Your task to perform on an android device: Show me the alarms in the clock app Image 0: 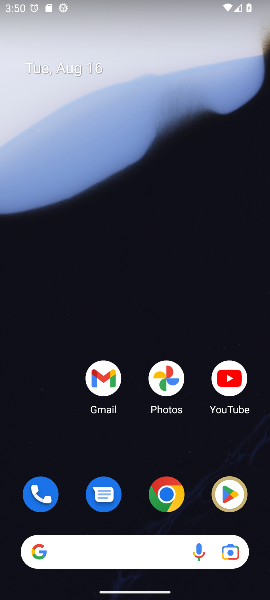
Step 0: drag from (133, 525) to (138, 40)
Your task to perform on an android device: Show me the alarms in the clock app Image 1: 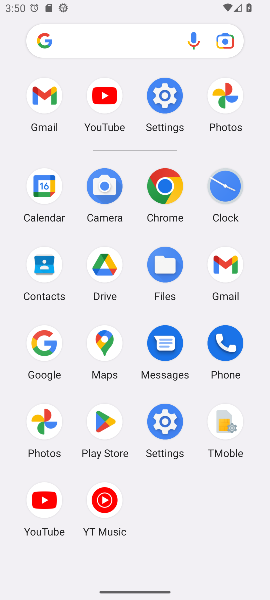
Step 1: click (228, 192)
Your task to perform on an android device: Show me the alarms in the clock app Image 2: 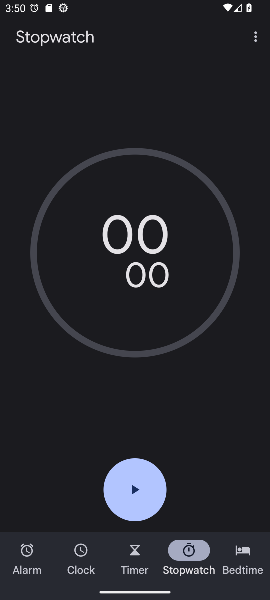
Step 2: click (7, 555)
Your task to perform on an android device: Show me the alarms in the clock app Image 3: 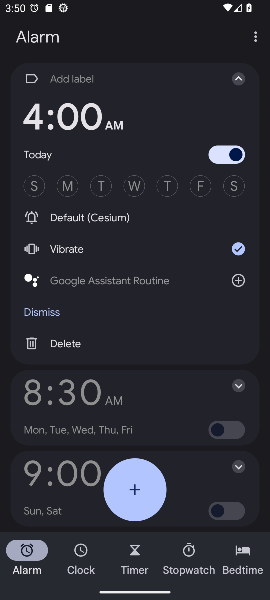
Step 3: task complete